Your task to perform on an android device: Is it going to rain tomorrow? Image 0: 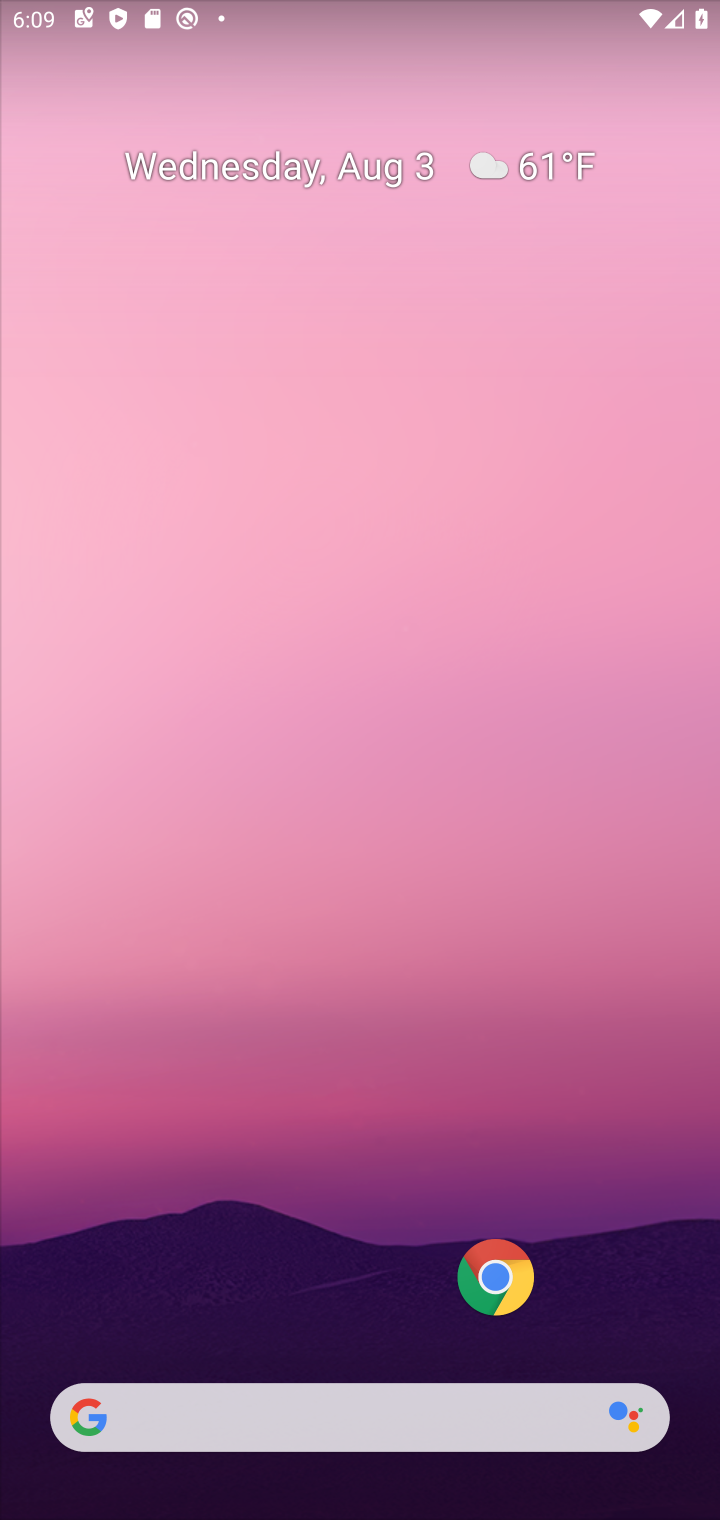
Step 0: click (307, 1395)
Your task to perform on an android device: Is it going to rain tomorrow? Image 1: 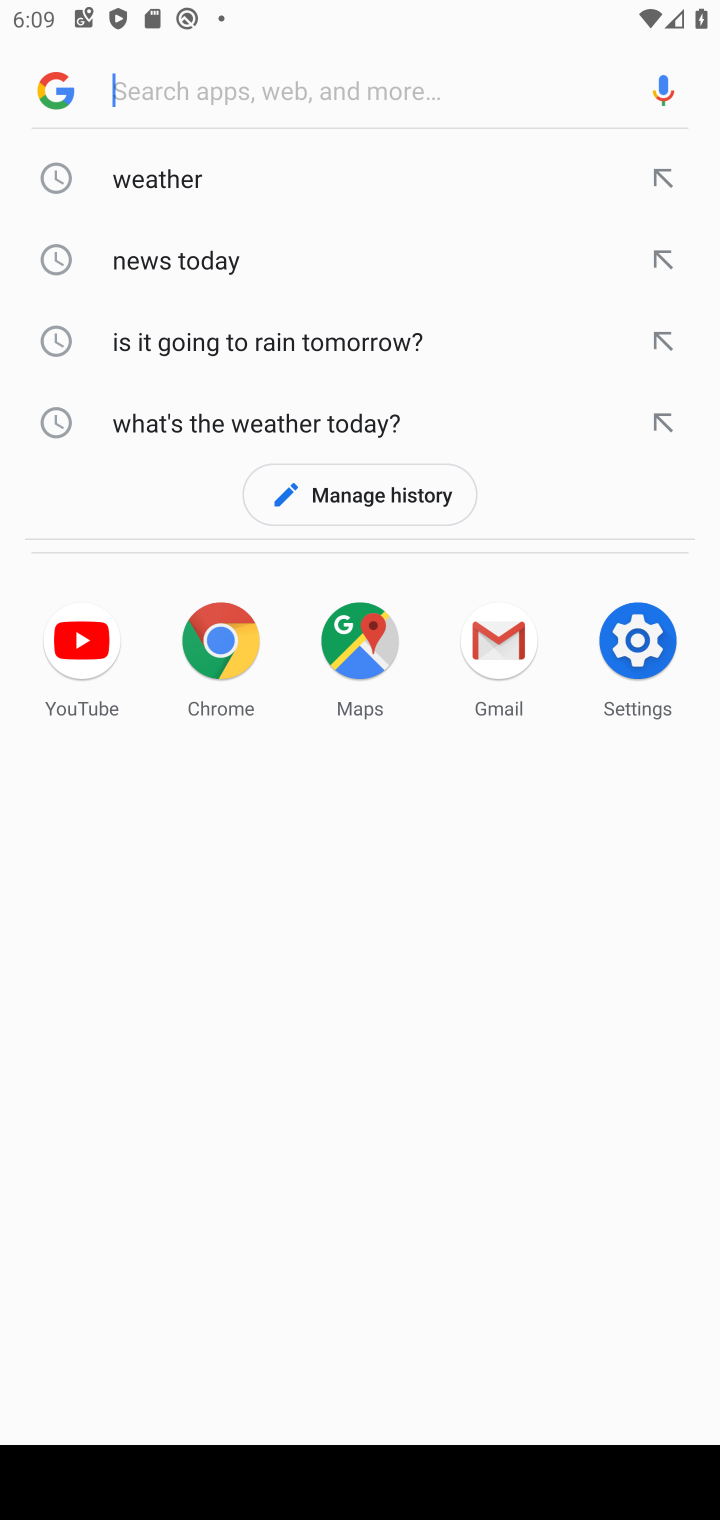
Step 1: click (148, 178)
Your task to perform on an android device: Is it going to rain tomorrow? Image 2: 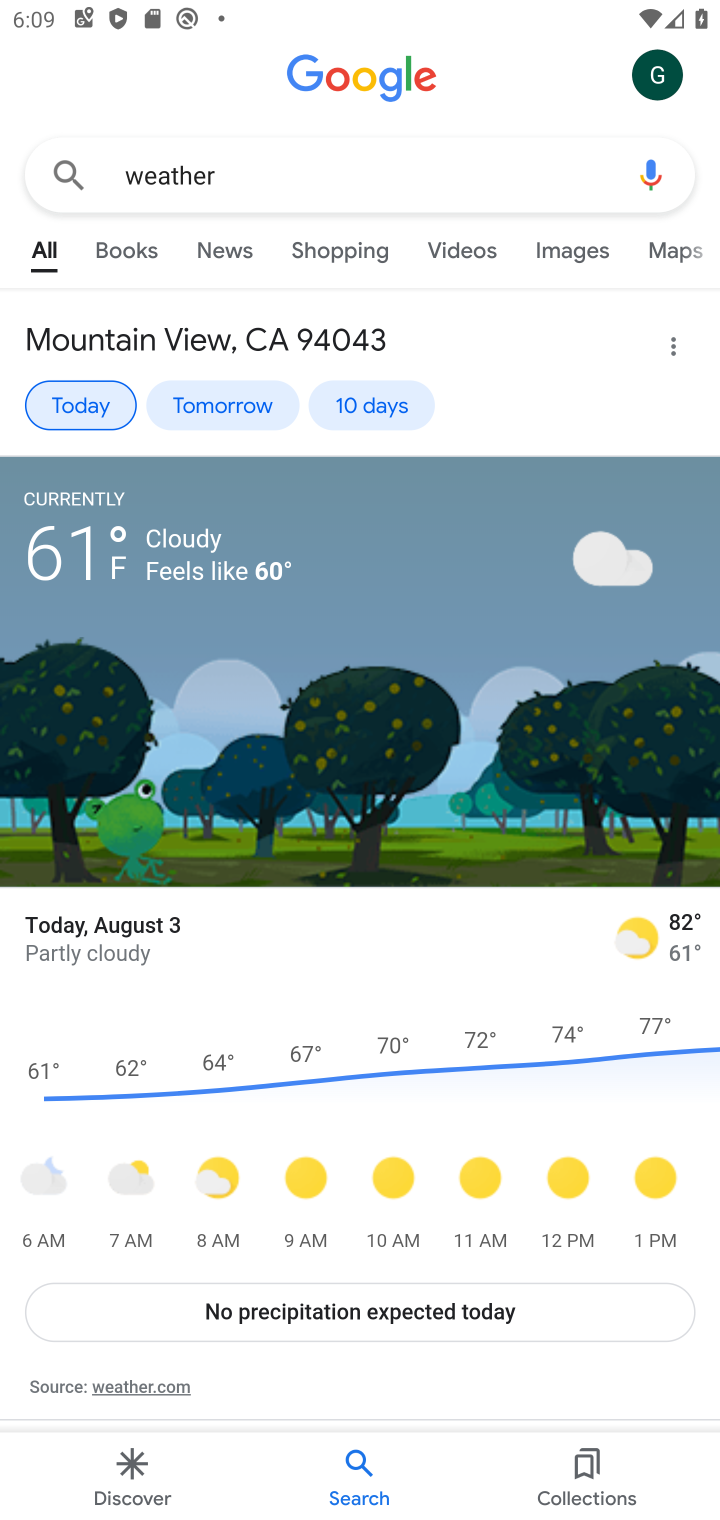
Step 2: click (213, 406)
Your task to perform on an android device: Is it going to rain tomorrow? Image 3: 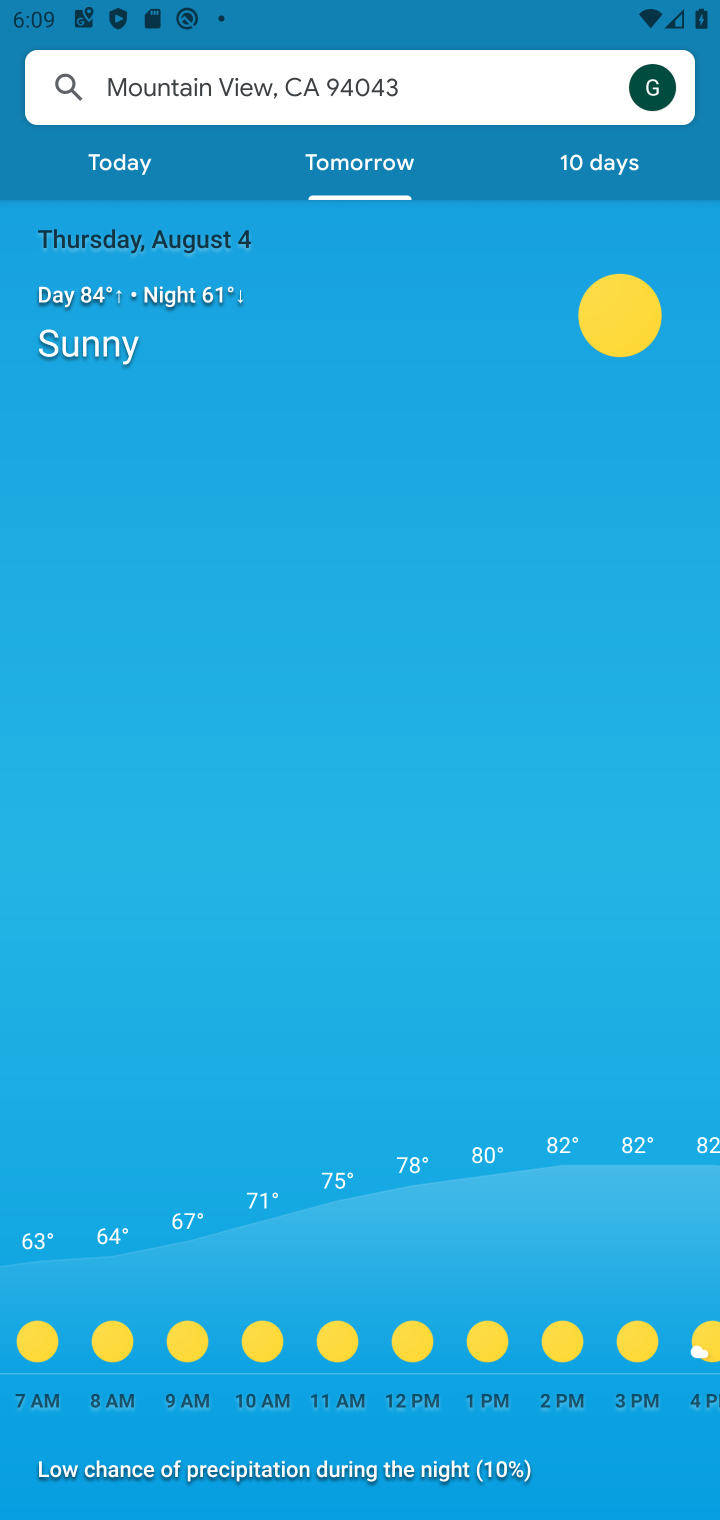
Step 3: task complete